Your task to perform on an android device: turn on priority inbox in the gmail app Image 0: 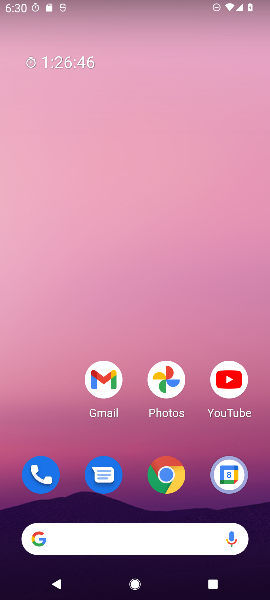
Step 0: press home button
Your task to perform on an android device: turn on priority inbox in the gmail app Image 1: 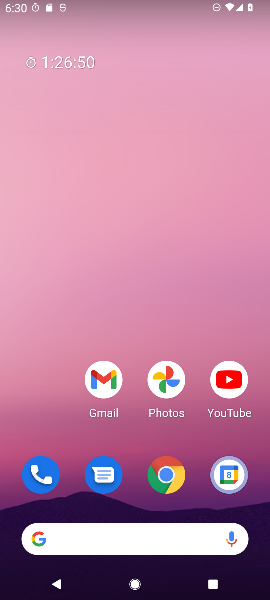
Step 1: drag from (45, 338) to (44, 148)
Your task to perform on an android device: turn on priority inbox in the gmail app Image 2: 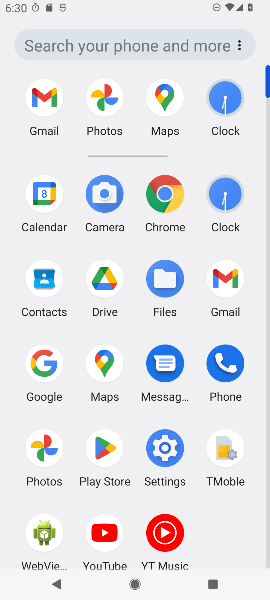
Step 2: click (223, 274)
Your task to perform on an android device: turn on priority inbox in the gmail app Image 3: 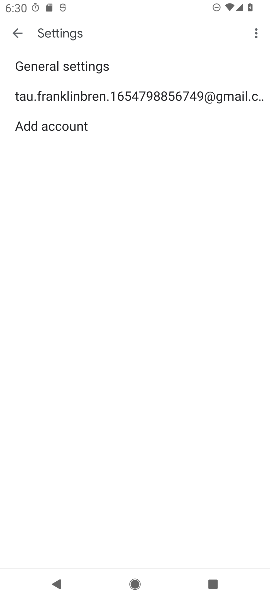
Step 3: click (140, 92)
Your task to perform on an android device: turn on priority inbox in the gmail app Image 4: 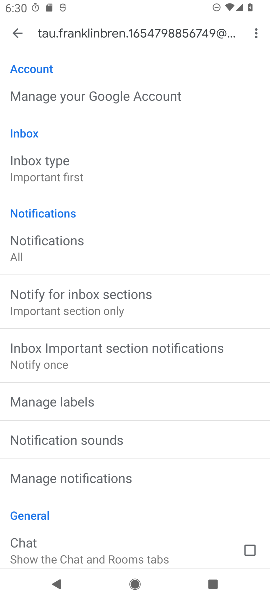
Step 4: drag from (199, 403) to (214, 290)
Your task to perform on an android device: turn on priority inbox in the gmail app Image 5: 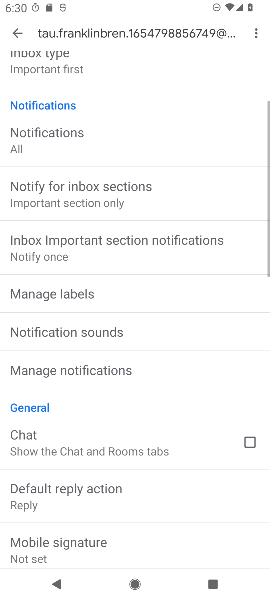
Step 5: drag from (215, 370) to (230, 200)
Your task to perform on an android device: turn on priority inbox in the gmail app Image 6: 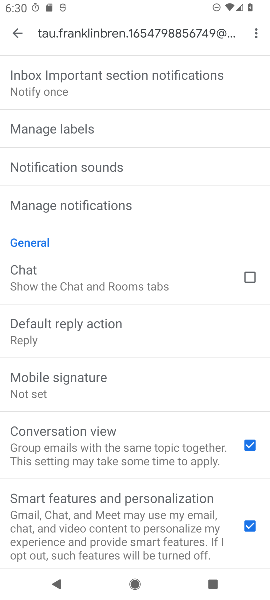
Step 6: drag from (177, 379) to (178, 259)
Your task to perform on an android device: turn on priority inbox in the gmail app Image 7: 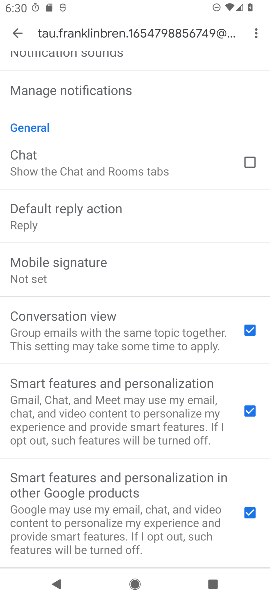
Step 7: drag from (180, 363) to (178, 274)
Your task to perform on an android device: turn on priority inbox in the gmail app Image 8: 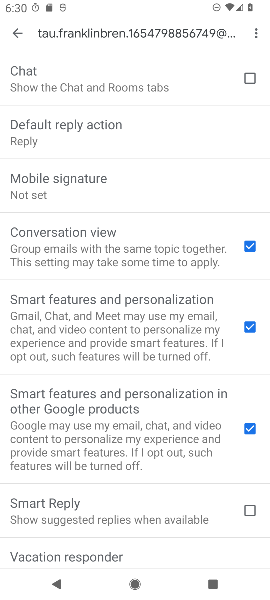
Step 8: drag from (200, 143) to (201, 295)
Your task to perform on an android device: turn on priority inbox in the gmail app Image 9: 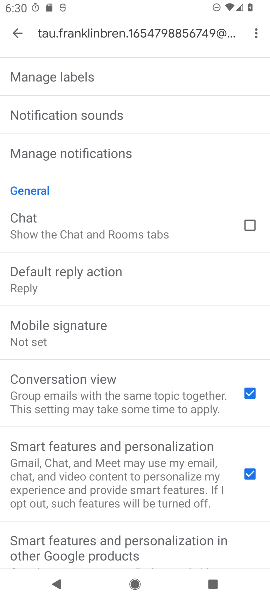
Step 9: click (133, 158)
Your task to perform on an android device: turn on priority inbox in the gmail app Image 10: 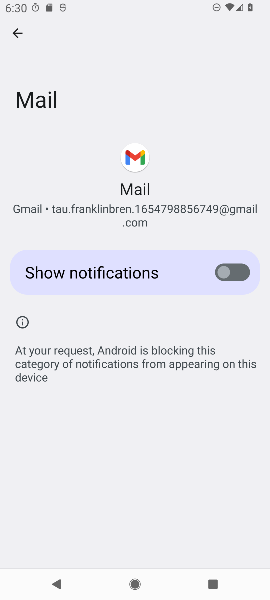
Step 10: click (227, 270)
Your task to perform on an android device: turn on priority inbox in the gmail app Image 11: 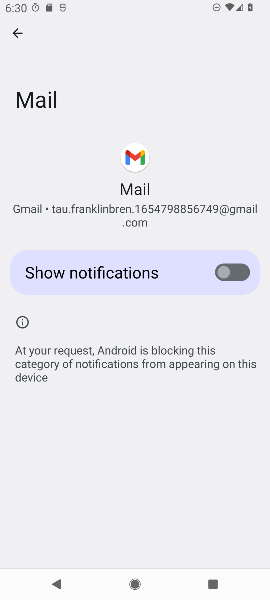
Step 11: task complete